Your task to perform on an android device: Open calendar and show me the second week of next month Image 0: 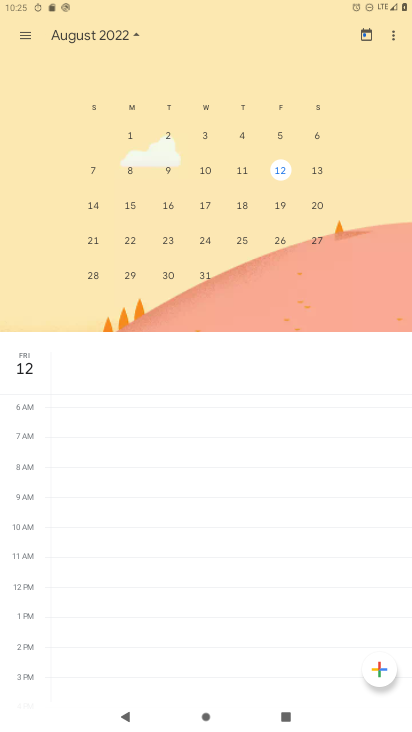
Step 0: task complete